Your task to perform on an android device: clear history in the chrome app Image 0: 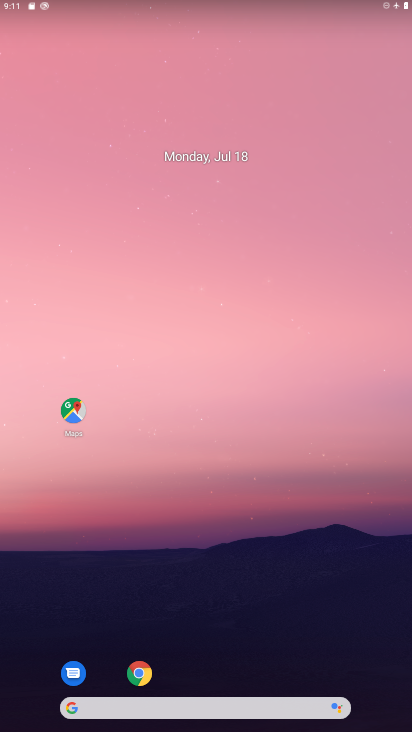
Step 0: press home button
Your task to perform on an android device: clear history in the chrome app Image 1: 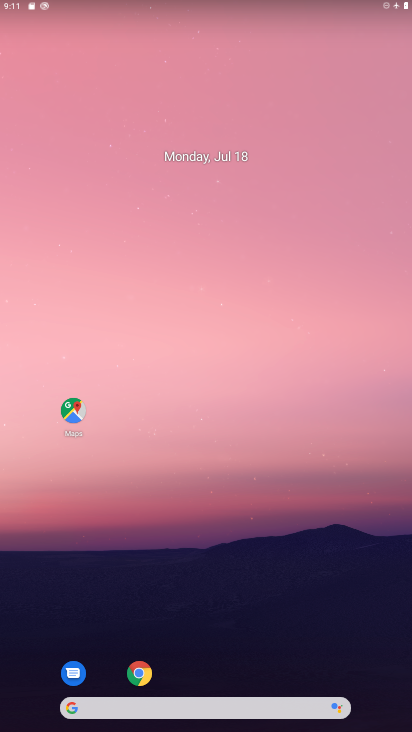
Step 1: drag from (280, 632) to (243, 154)
Your task to perform on an android device: clear history in the chrome app Image 2: 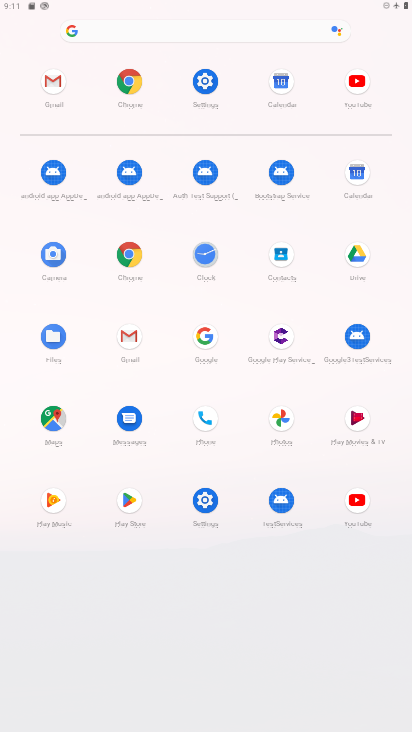
Step 2: click (126, 100)
Your task to perform on an android device: clear history in the chrome app Image 3: 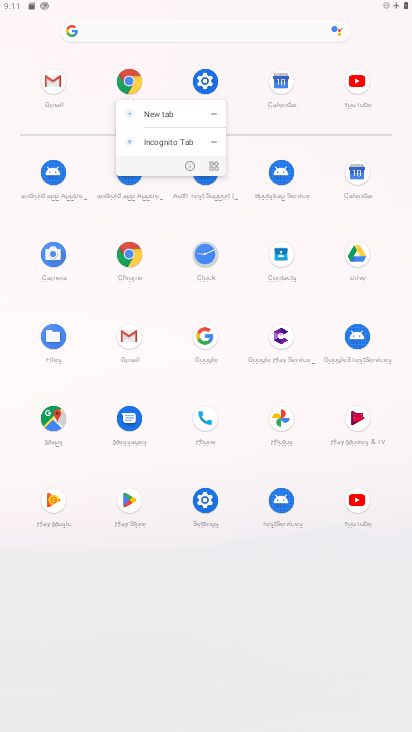
Step 3: click (135, 84)
Your task to perform on an android device: clear history in the chrome app Image 4: 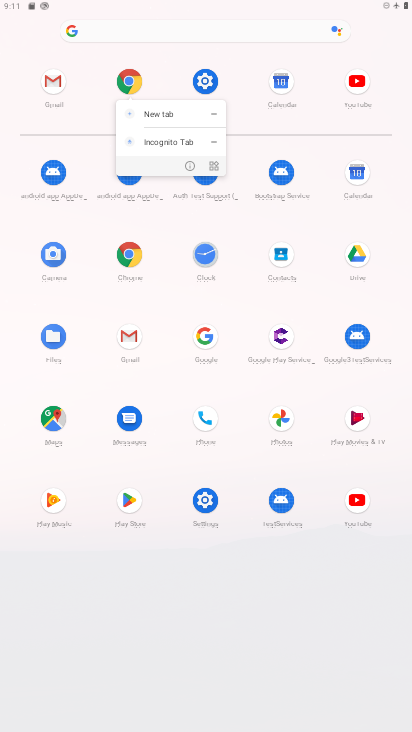
Step 4: click (130, 63)
Your task to perform on an android device: clear history in the chrome app Image 5: 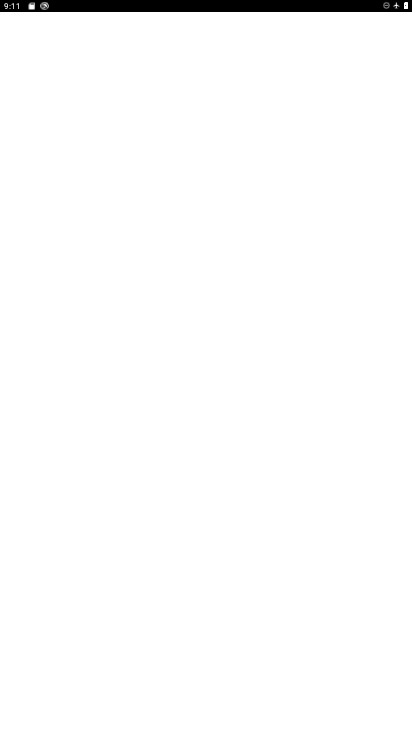
Step 5: click (133, 78)
Your task to perform on an android device: clear history in the chrome app Image 6: 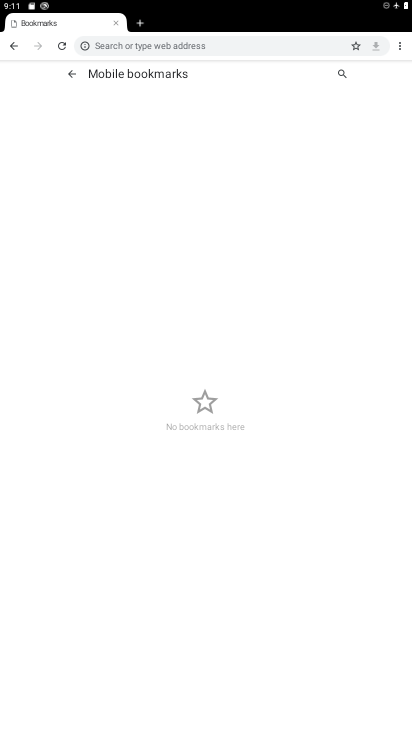
Step 6: drag from (402, 51) to (312, 138)
Your task to perform on an android device: clear history in the chrome app Image 7: 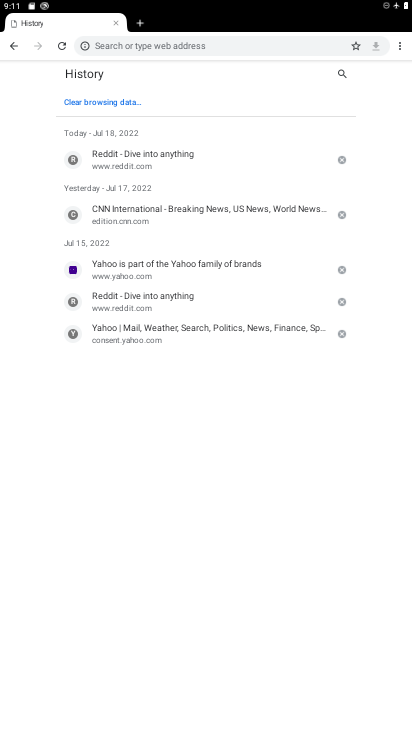
Step 7: click (91, 102)
Your task to perform on an android device: clear history in the chrome app Image 8: 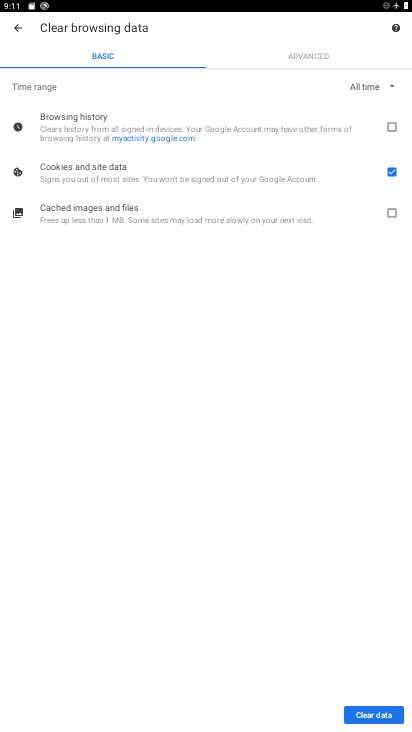
Step 8: click (390, 133)
Your task to perform on an android device: clear history in the chrome app Image 9: 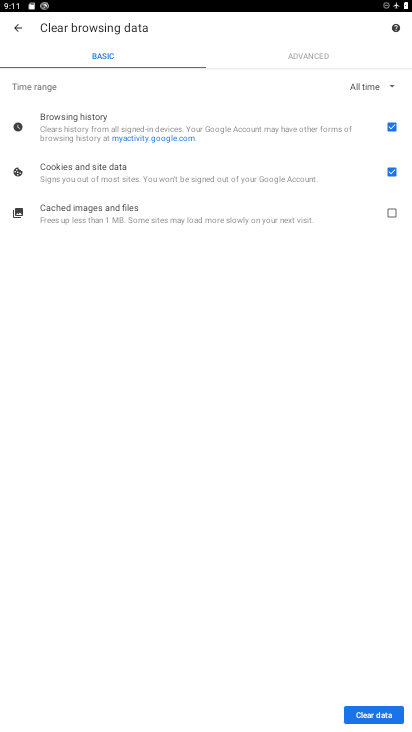
Step 9: click (387, 208)
Your task to perform on an android device: clear history in the chrome app Image 10: 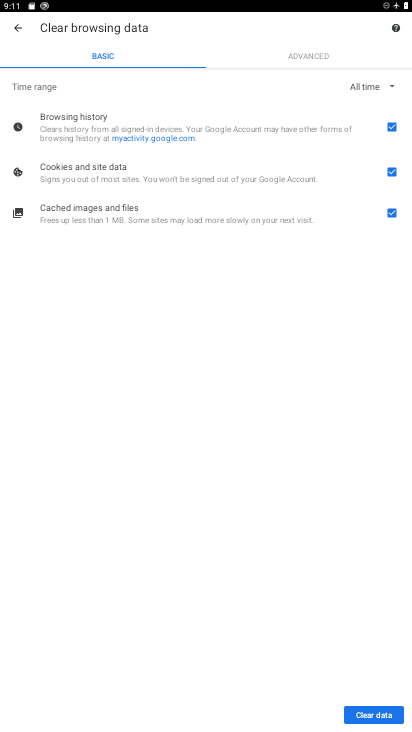
Step 10: click (373, 714)
Your task to perform on an android device: clear history in the chrome app Image 11: 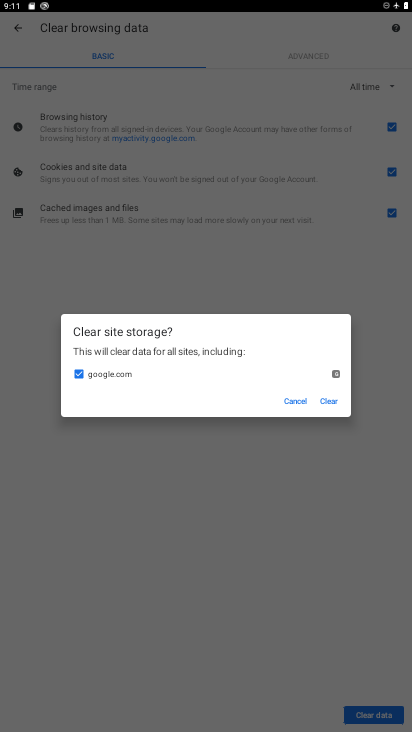
Step 11: click (329, 399)
Your task to perform on an android device: clear history in the chrome app Image 12: 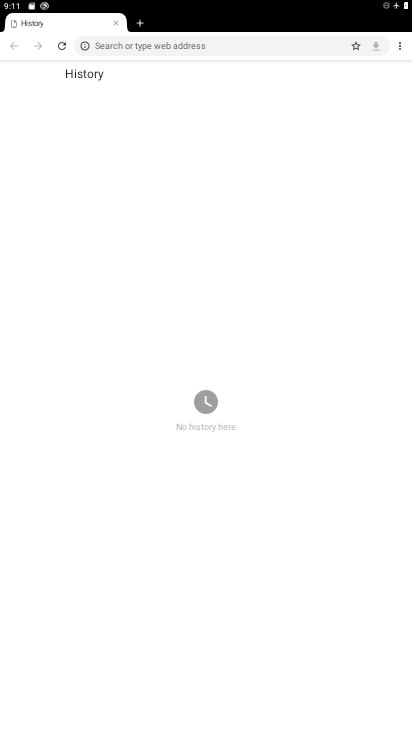
Step 12: task complete